Your task to perform on an android device: Set an alarm for 8pm Image 0: 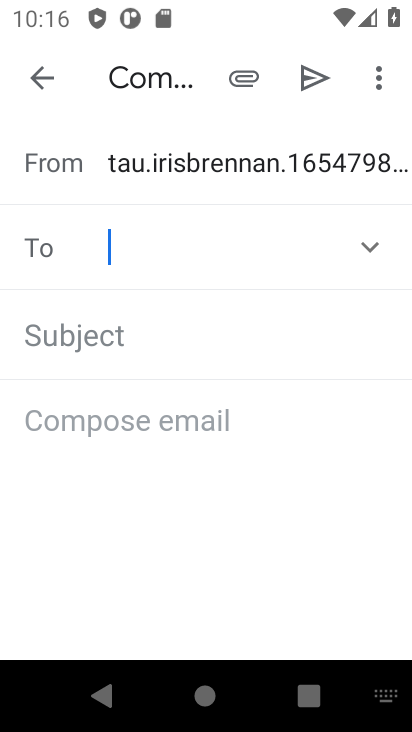
Step 0: press home button
Your task to perform on an android device: Set an alarm for 8pm Image 1: 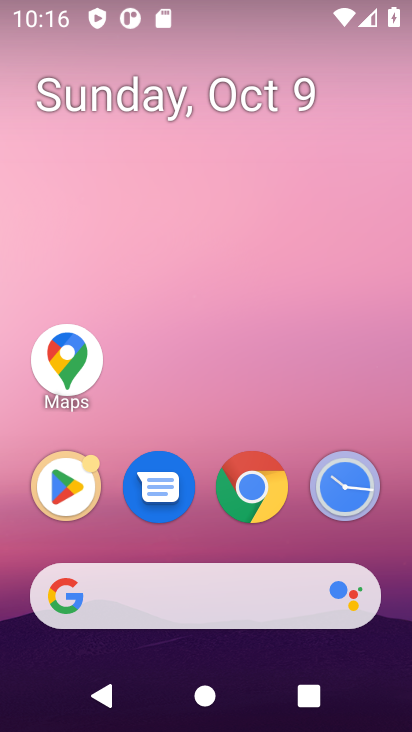
Step 1: drag from (211, 538) to (173, 51)
Your task to perform on an android device: Set an alarm for 8pm Image 2: 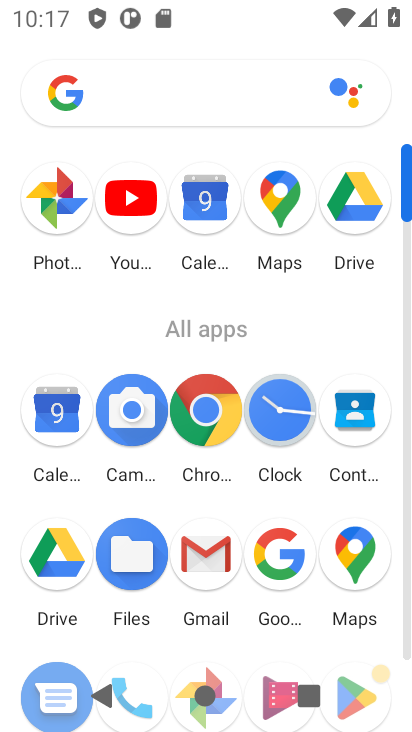
Step 2: click (278, 421)
Your task to perform on an android device: Set an alarm for 8pm Image 3: 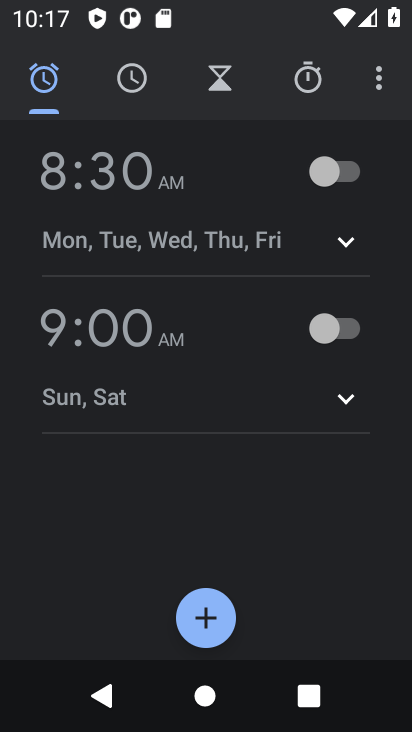
Step 3: click (205, 607)
Your task to perform on an android device: Set an alarm for 8pm Image 4: 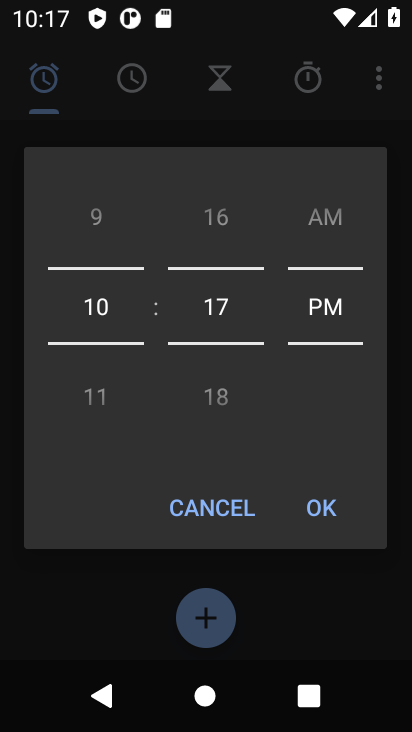
Step 4: drag from (203, 393) to (175, 248)
Your task to perform on an android device: Set an alarm for 8pm Image 5: 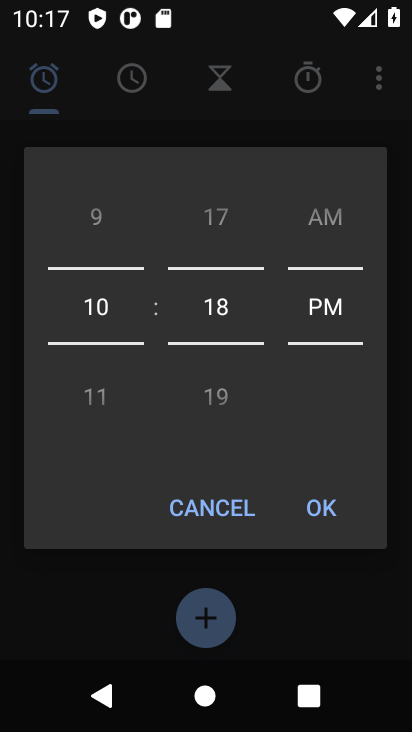
Step 5: drag from (92, 215) to (87, 399)
Your task to perform on an android device: Set an alarm for 8pm Image 6: 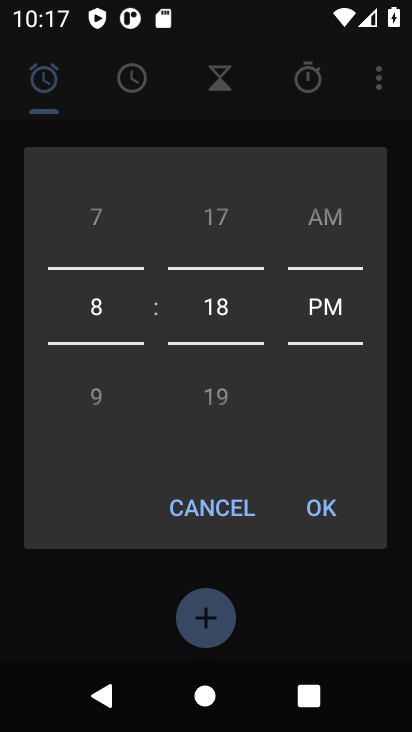
Step 6: click (326, 511)
Your task to perform on an android device: Set an alarm for 8pm Image 7: 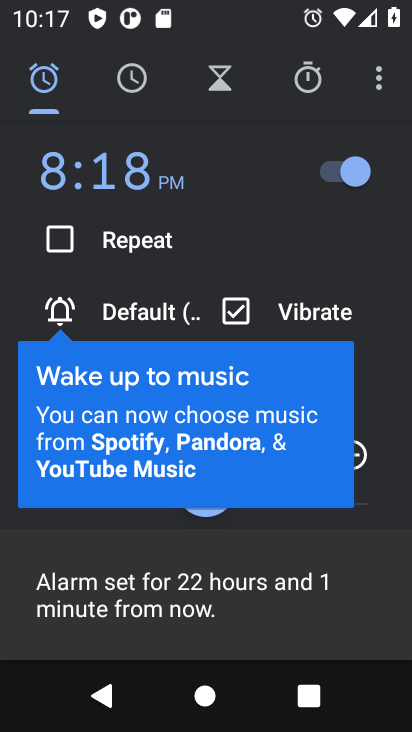
Step 7: task complete